Your task to perform on an android device: set the stopwatch Image 0: 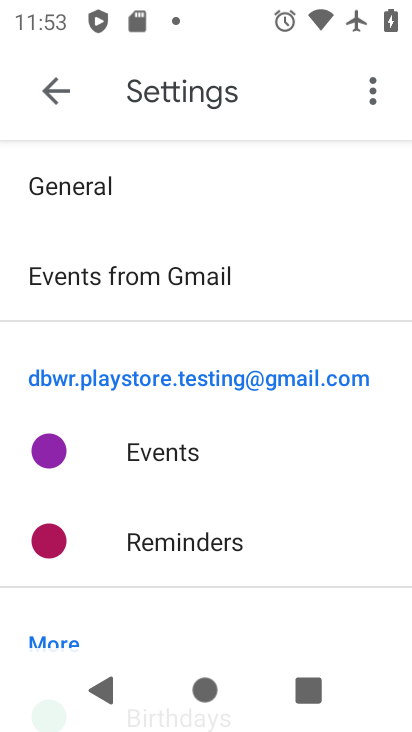
Step 0: press home button
Your task to perform on an android device: set the stopwatch Image 1: 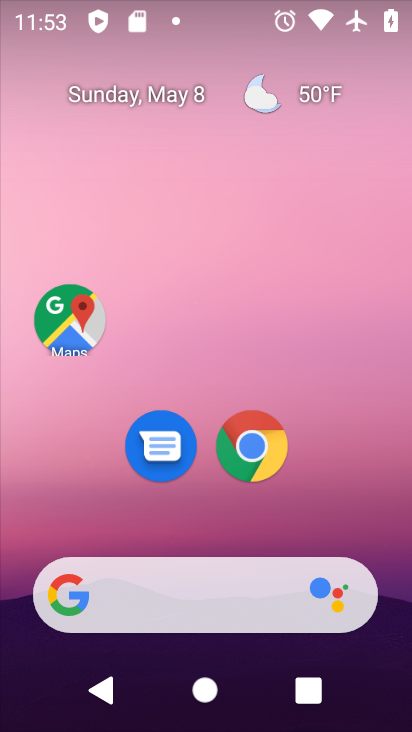
Step 1: drag from (294, 534) to (301, 28)
Your task to perform on an android device: set the stopwatch Image 2: 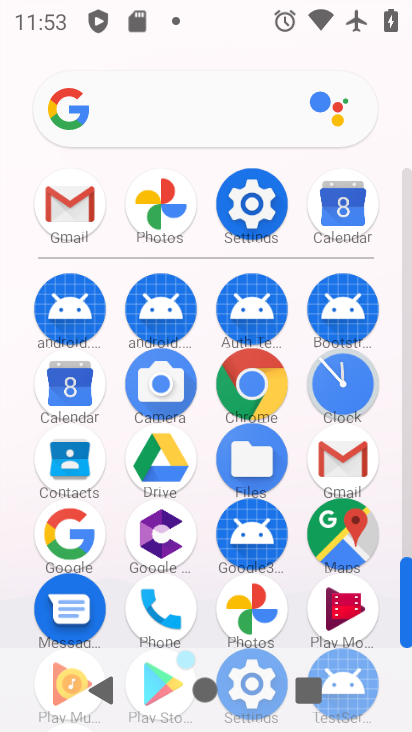
Step 2: click (336, 389)
Your task to perform on an android device: set the stopwatch Image 3: 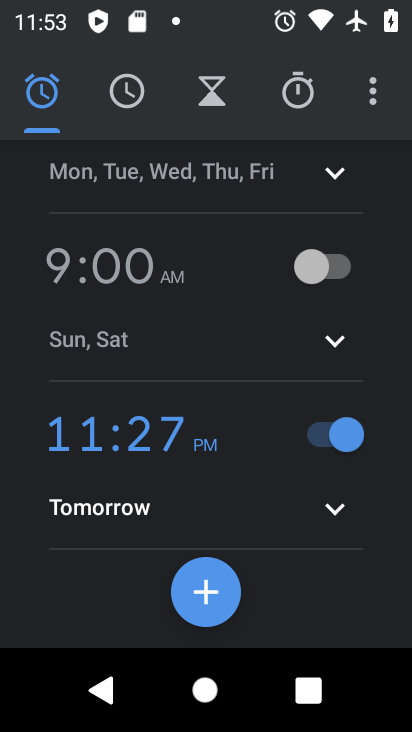
Step 3: click (287, 101)
Your task to perform on an android device: set the stopwatch Image 4: 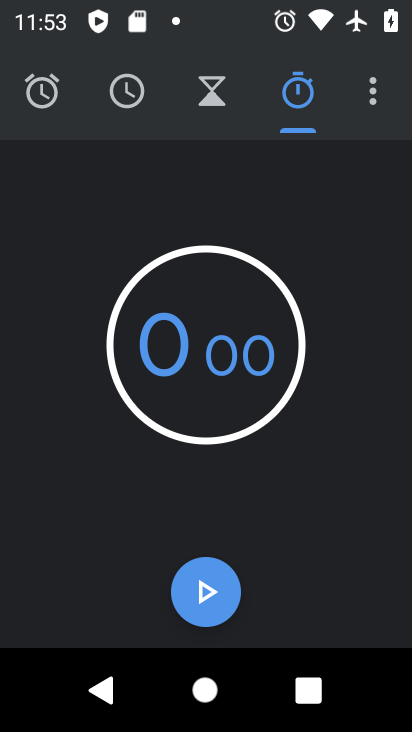
Step 4: click (222, 576)
Your task to perform on an android device: set the stopwatch Image 5: 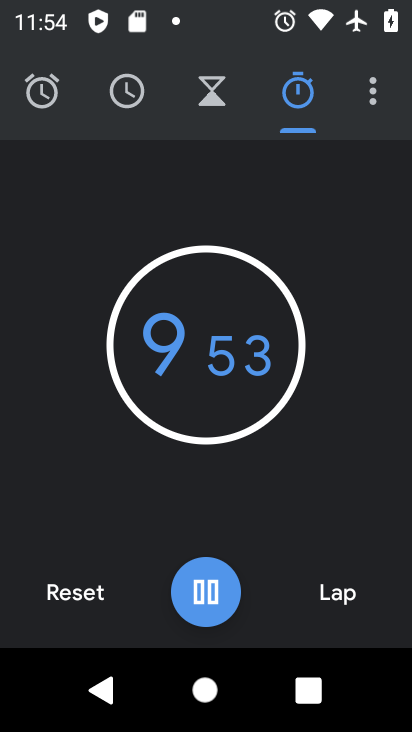
Step 5: task complete